Your task to perform on an android device: Go to wifi settings Image 0: 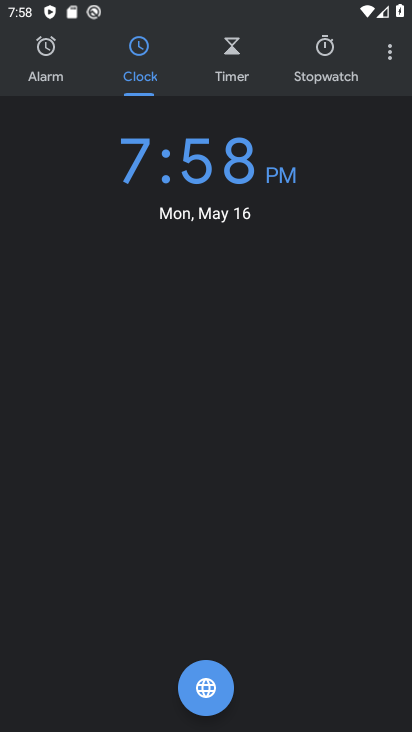
Step 0: drag from (249, 12) to (252, 593)
Your task to perform on an android device: Go to wifi settings Image 1: 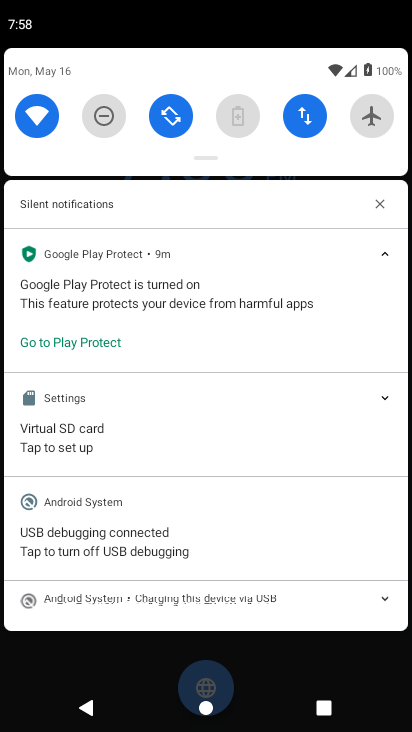
Step 1: click (252, 593)
Your task to perform on an android device: Go to wifi settings Image 2: 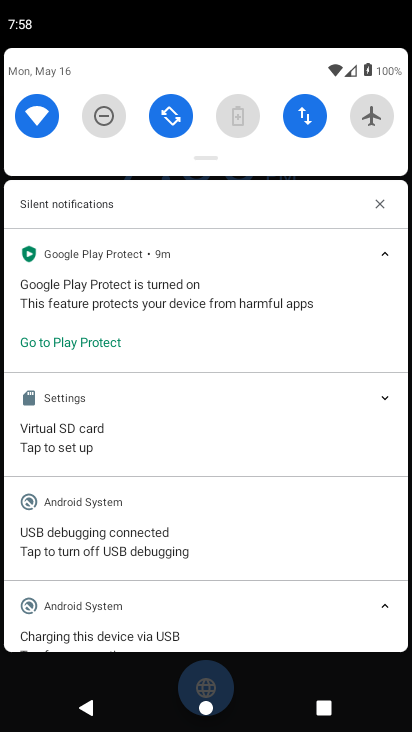
Step 2: click (40, 108)
Your task to perform on an android device: Go to wifi settings Image 3: 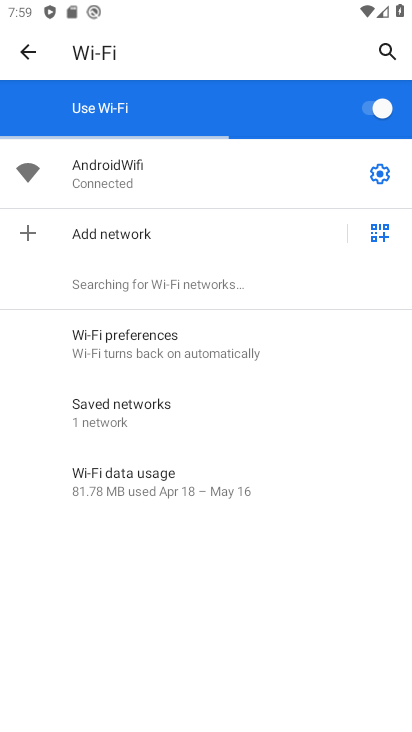
Step 3: task complete